Your task to perform on an android device: install app "PUBG MOBILE" Image 0: 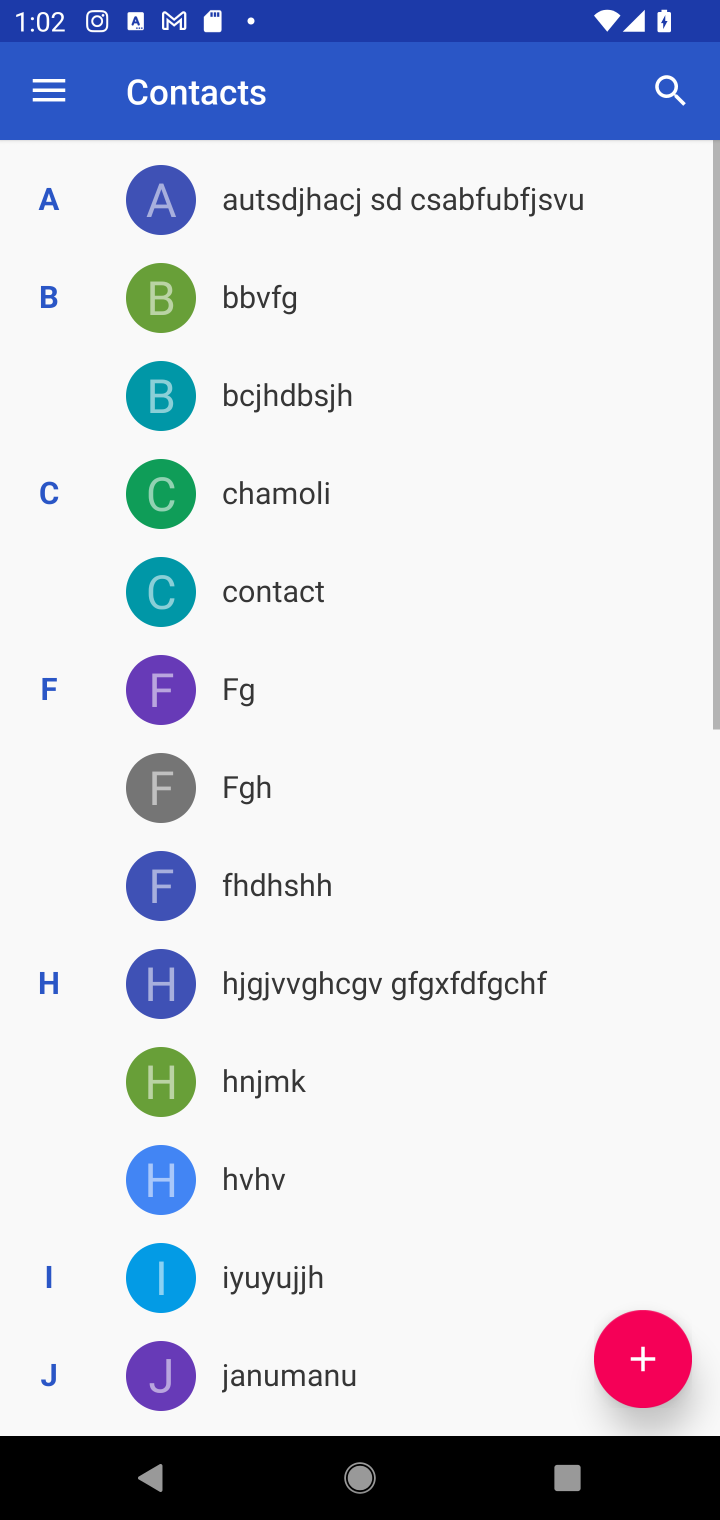
Step 0: press back button
Your task to perform on an android device: install app "PUBG MOBILE" Image 1: 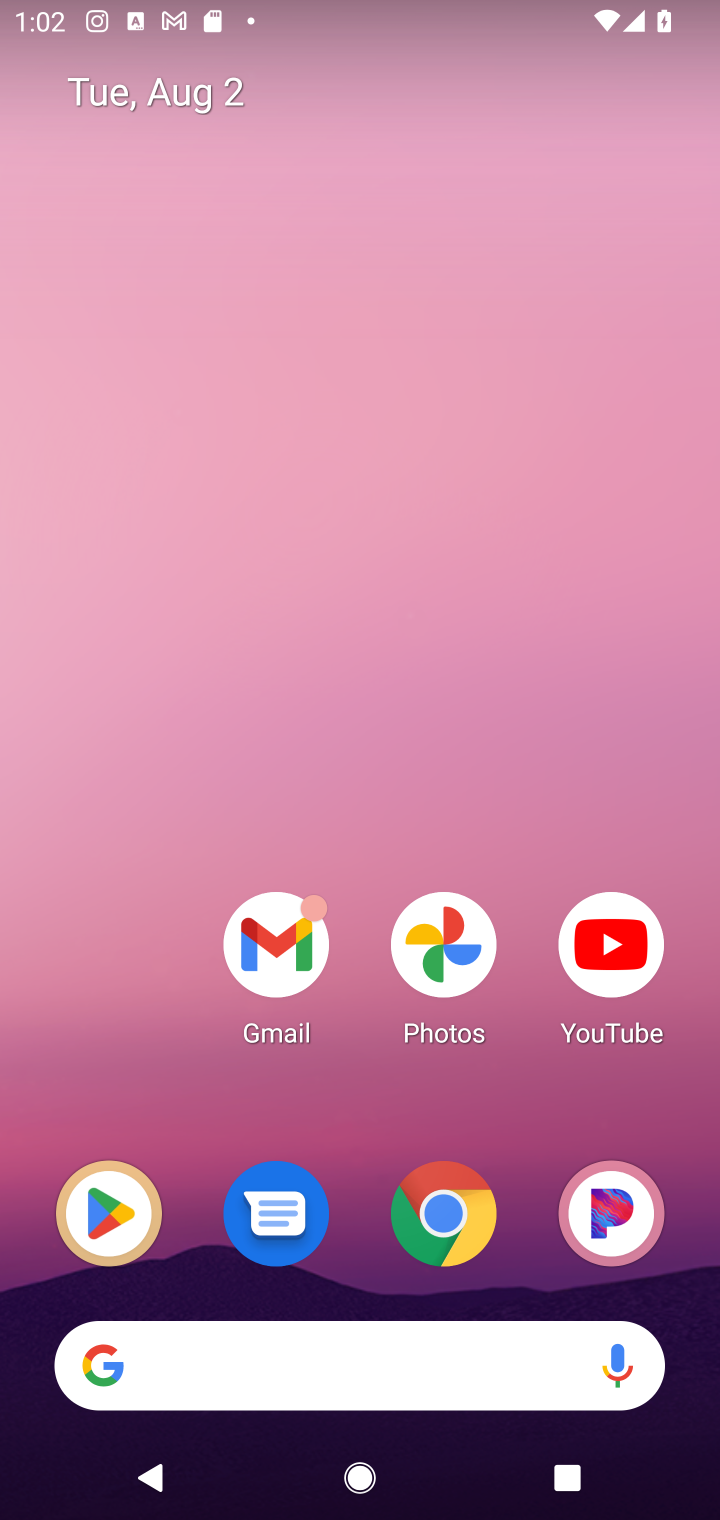
Step 1: click (111, 1219)
Your task to perform on an android device: install app "PUBG MOBILE" Image 2: 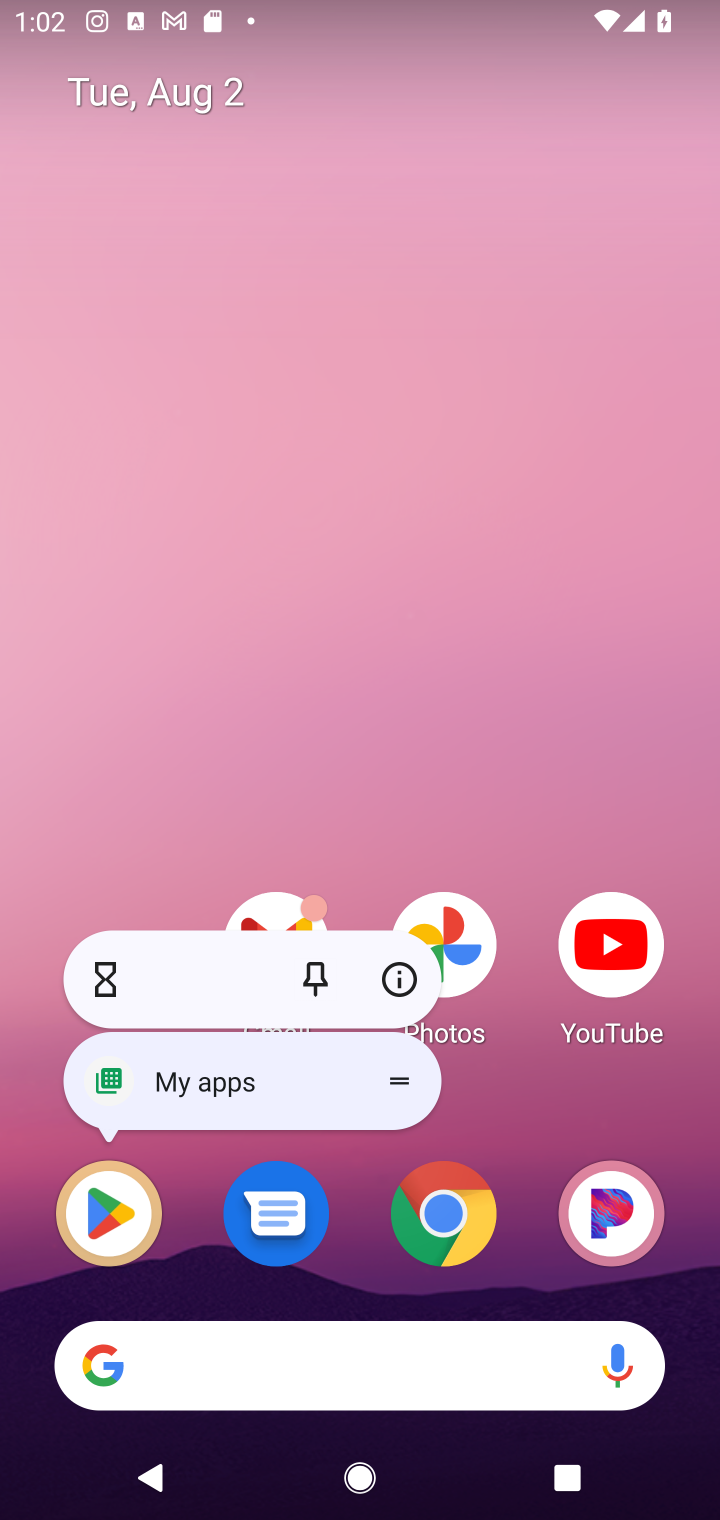
Step 2: click (111, 1219)
Your task to perform on an android device: install app "PUBG MOBILE" Image 3: 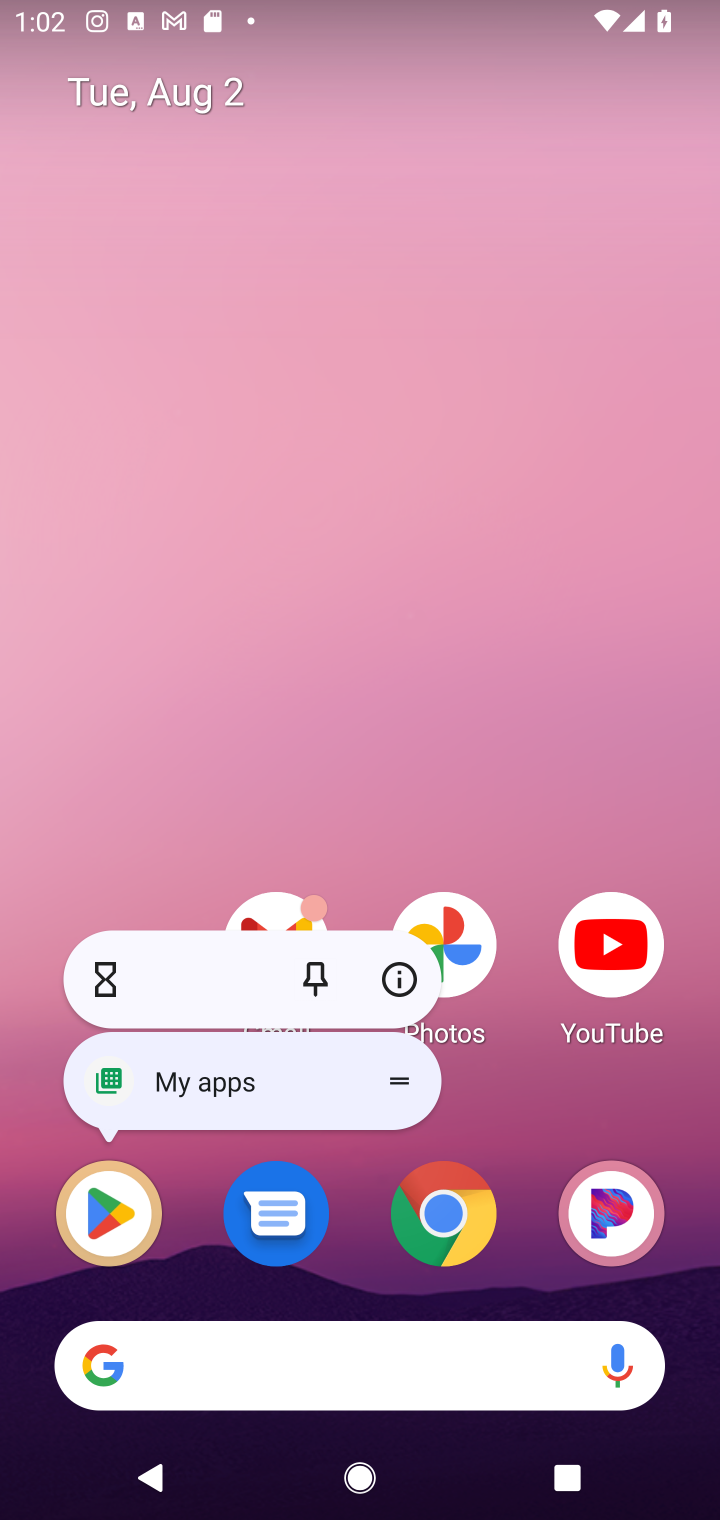
Step 3: click (117, 1248)
Your task to perform on an android device: install app "PUBG MOBILE" Image 4: 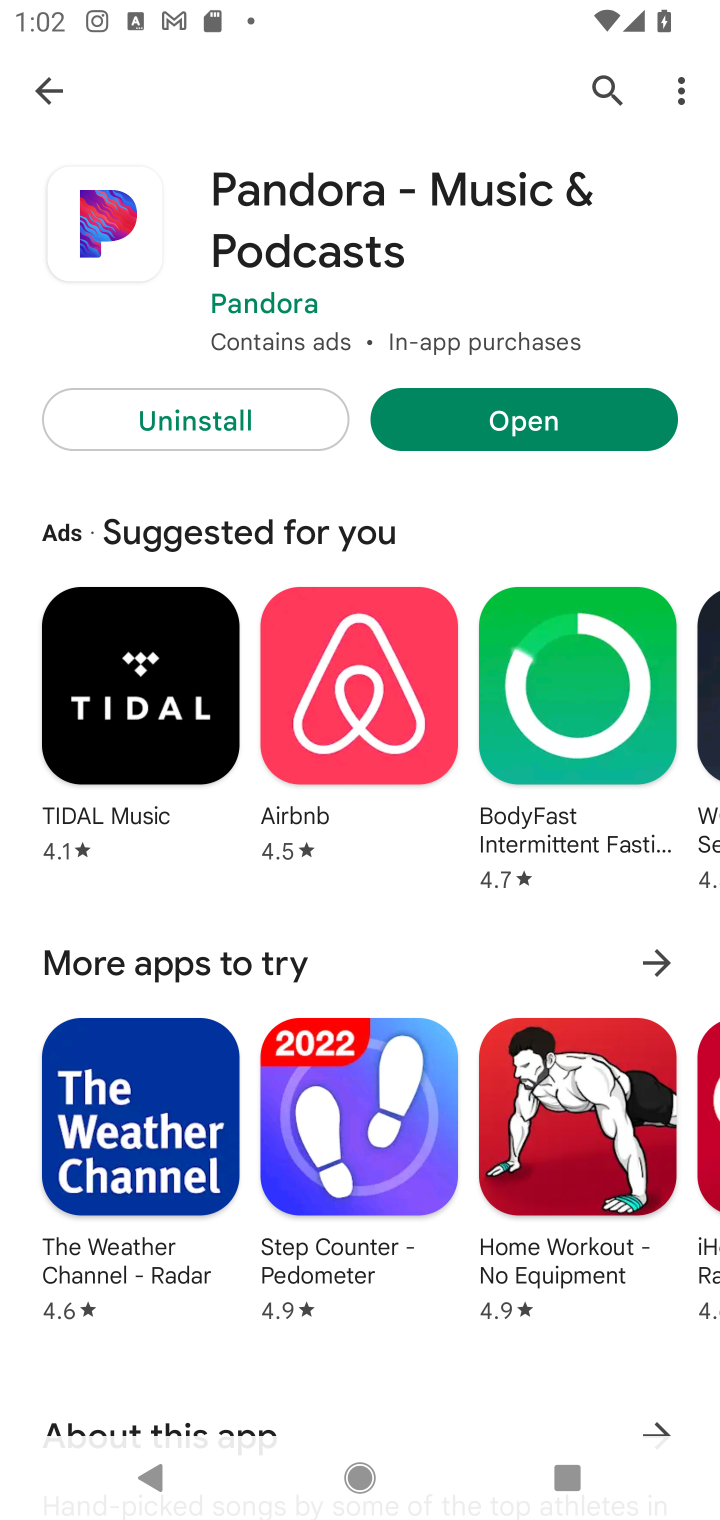
Step 4: click (45, 88)
Your task to perform on an android device: install app "PUBG MOBILE" Image 5: 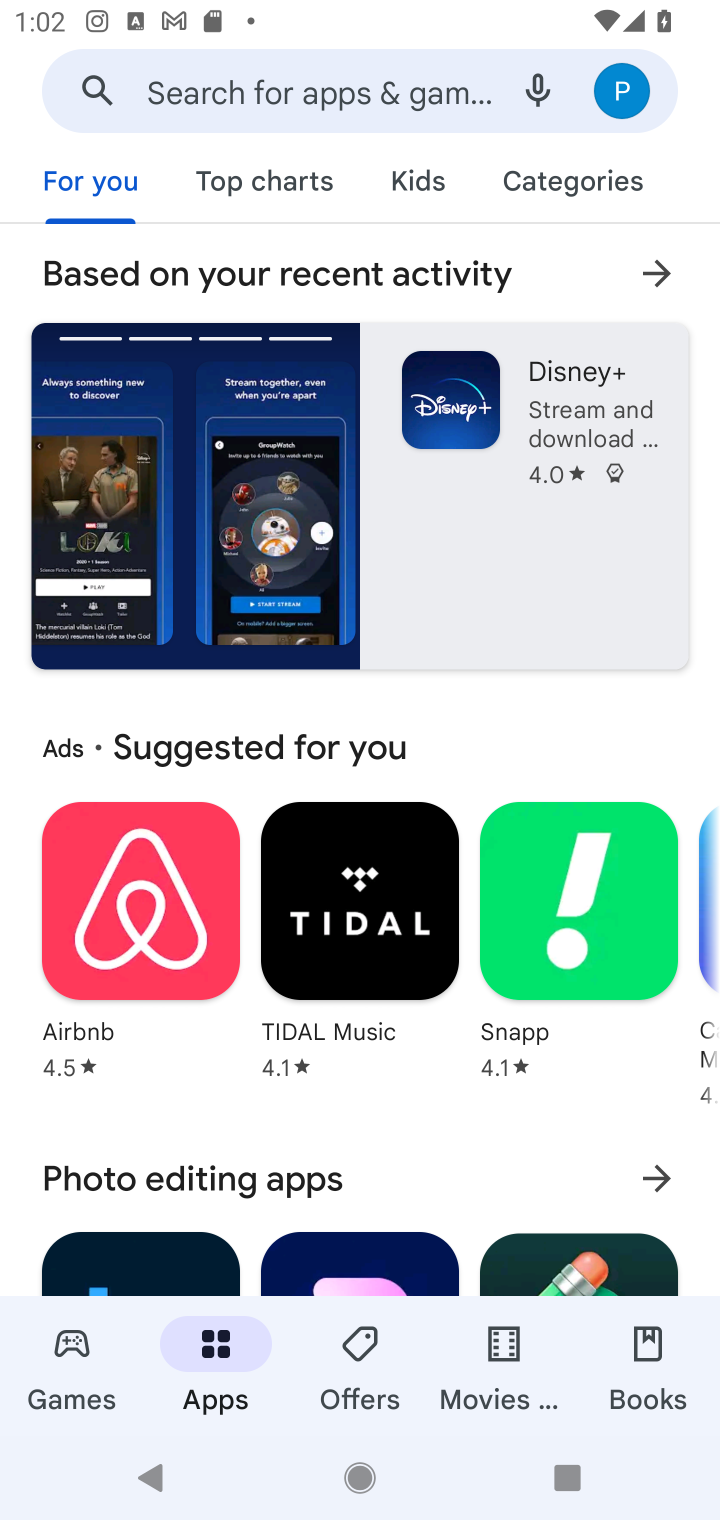
Step 5: click (291, 84)
Your task to perform on an android device: install app "PUBG MOBILE" Image 6: 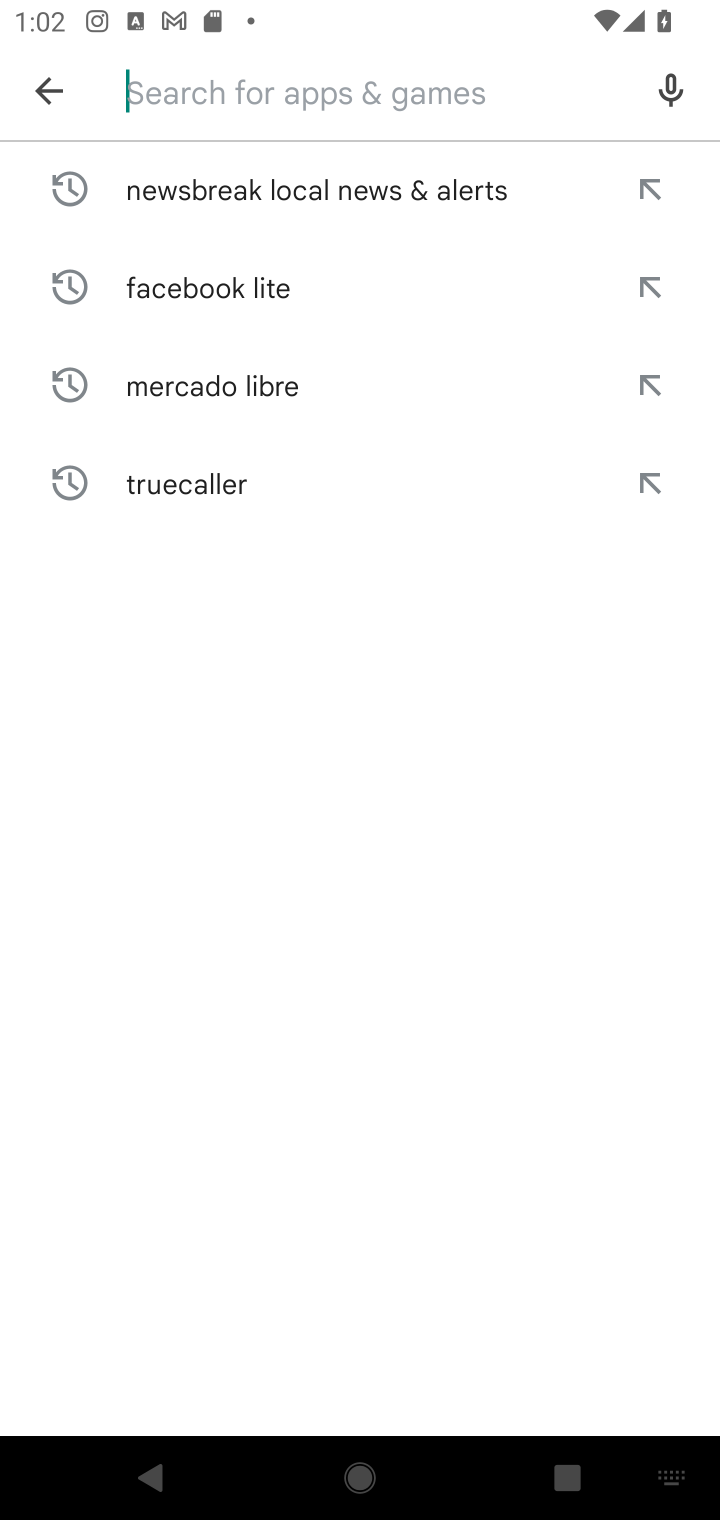
Step 6: type "PUBG MOBILE"
Your task to perform on an android device: install app "PUBG MOBILE" Image 7: 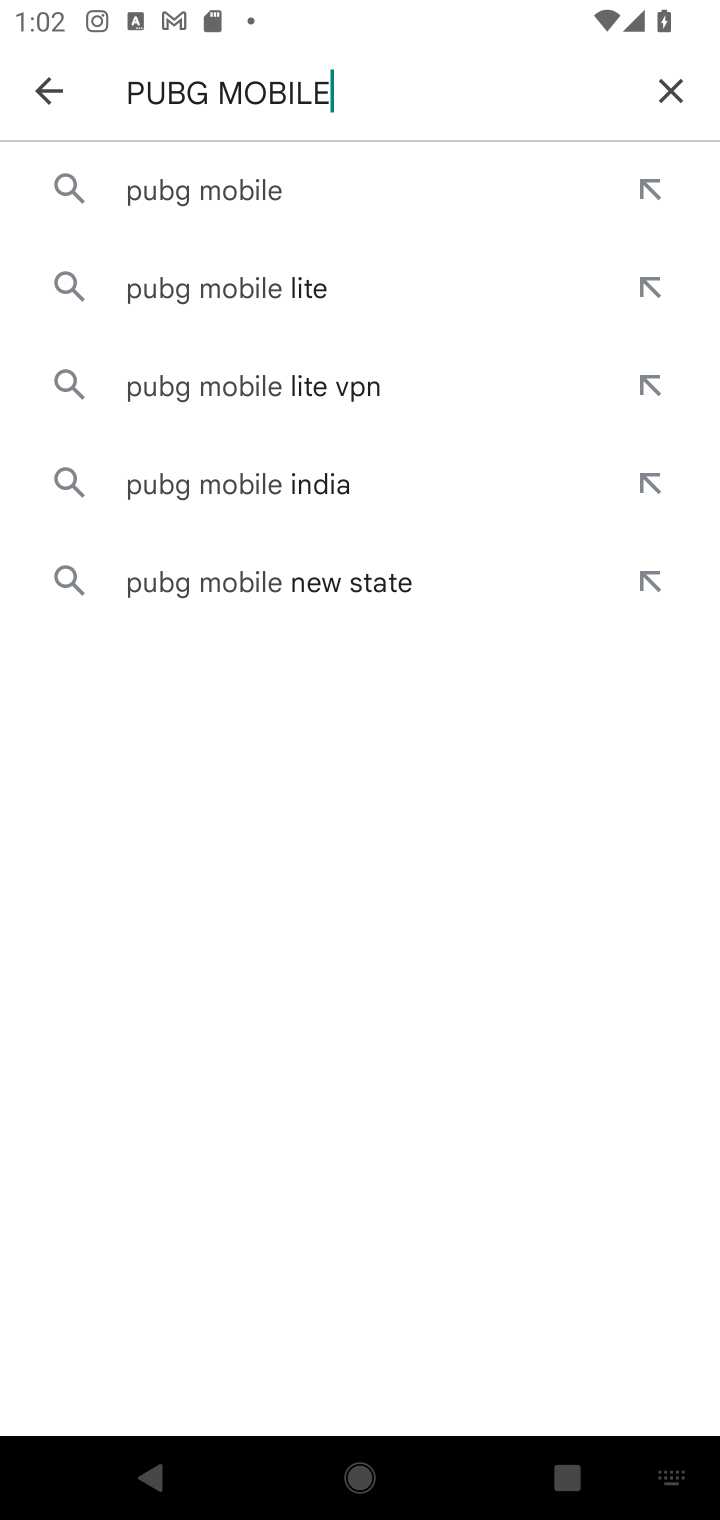
Step 7: click (253, 188)
Your task to perform on an android device: install app "PUBG MOBILE" Image 8: 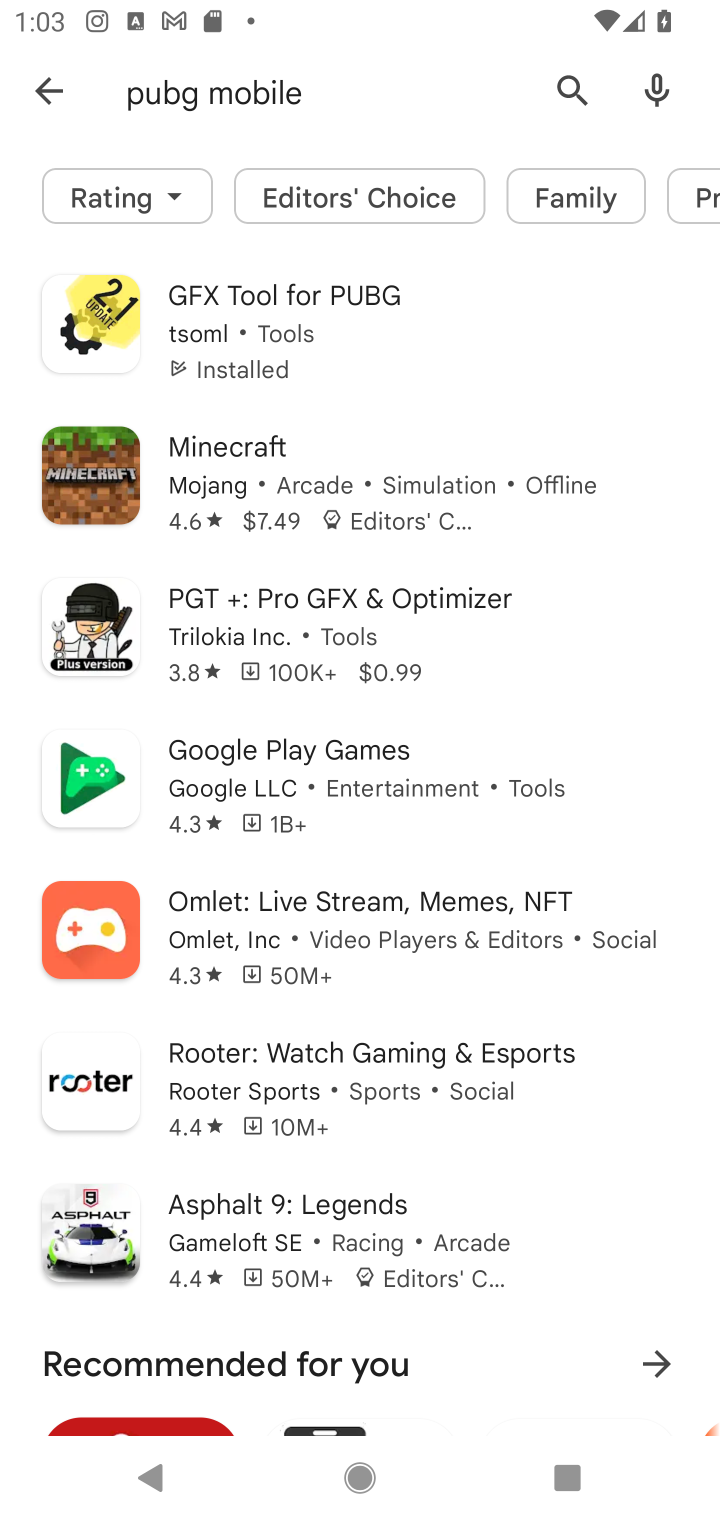
Step 8: click (208, 305)
Your task to perform on an android device: install app "PUBG MOBILE" Image 9: 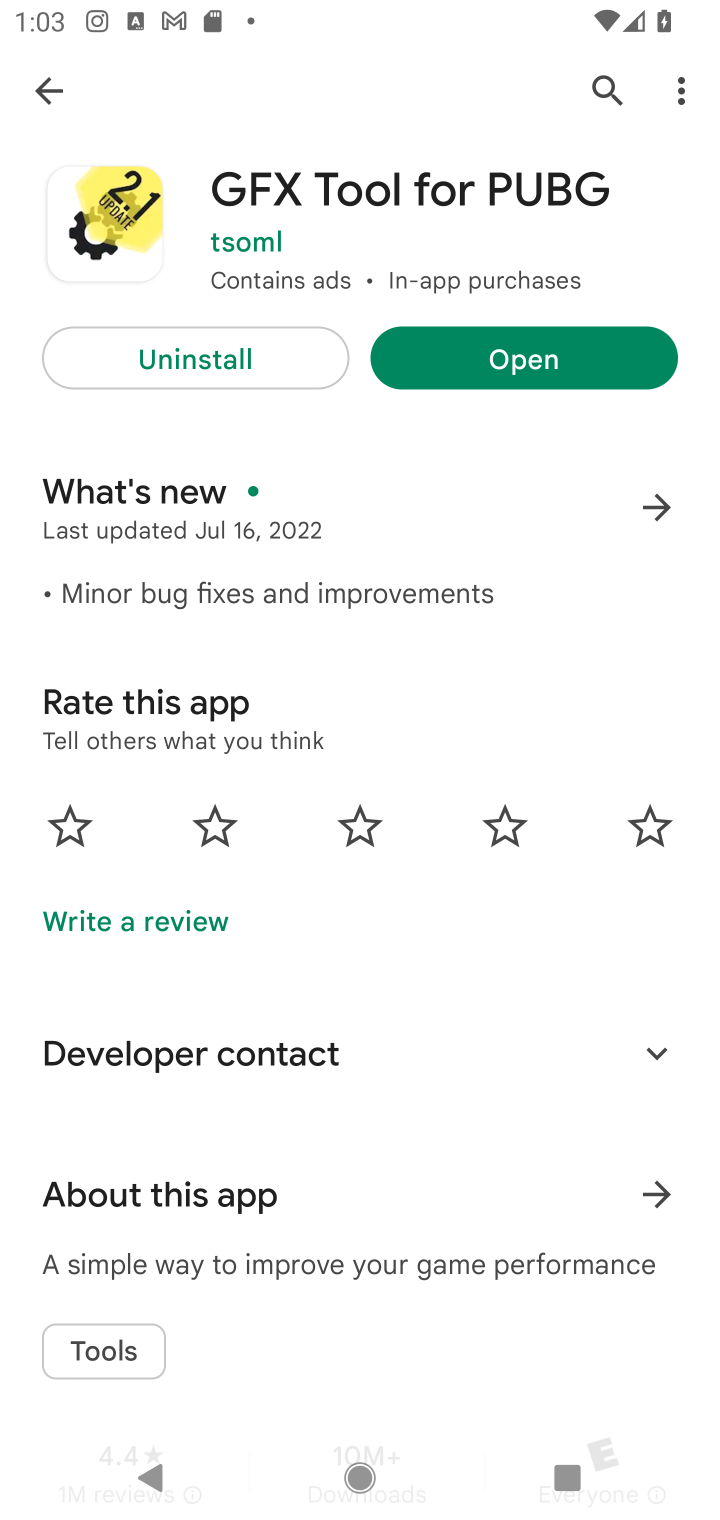
Step 9: click (472, 354)
Your task to perform on an android device: install app "PUBG MOBILE" Image 10: 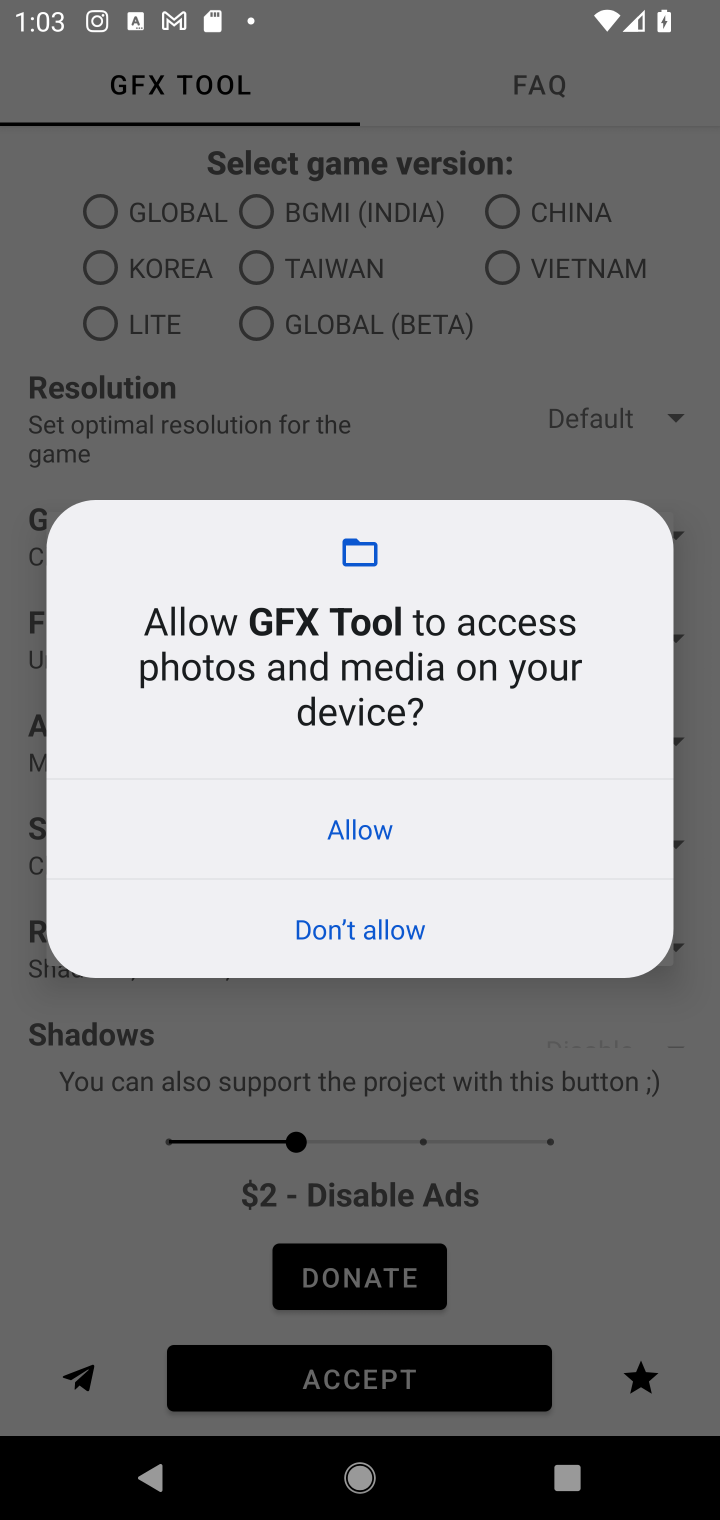
Step 10: click (317, 838)
Your task to perform on an android device: install app "PUBG MOBILE" Image 11: 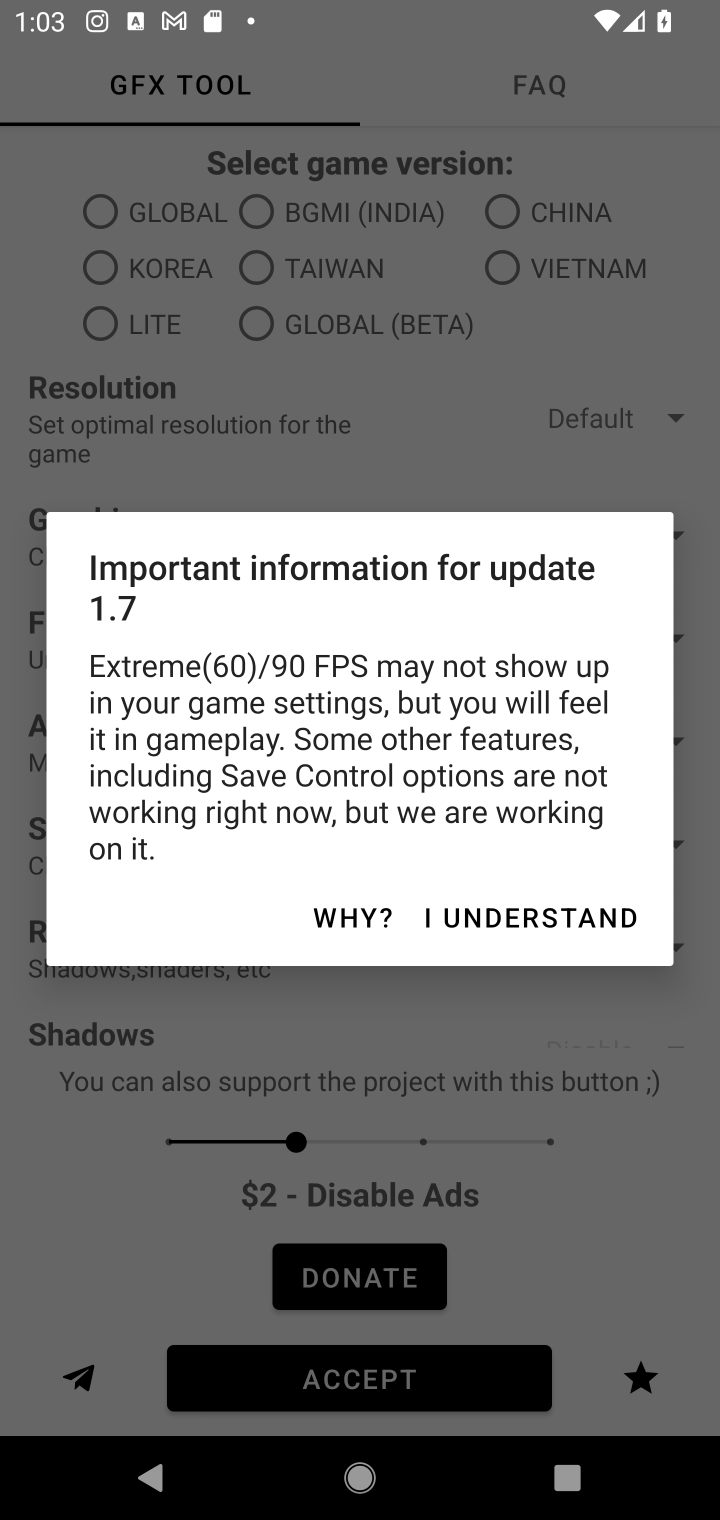
Step 11: task complete